Your task to perform on an android device: change the upload size in google photos Image 0: 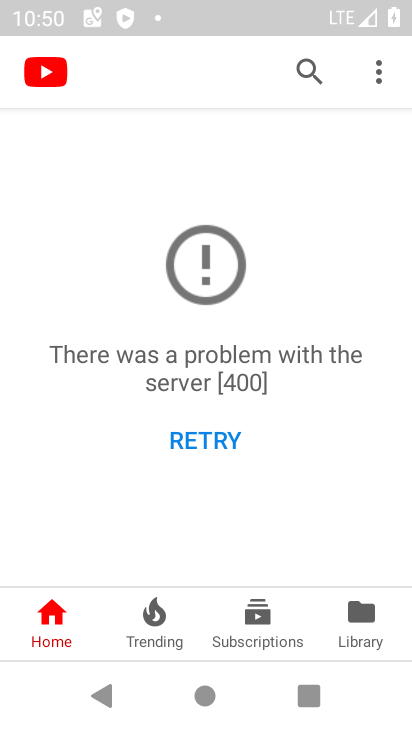
Step 0: press back button
Your task to perform on an android device: change the upload size in google photos Image 1: 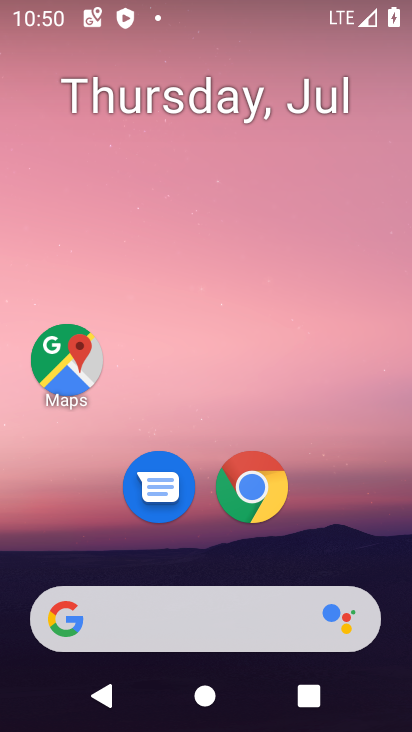
Step 1: drag from (198, 587) to (262, 36)
Your task to perform on an android device: change the upload size in google photos Image 2: 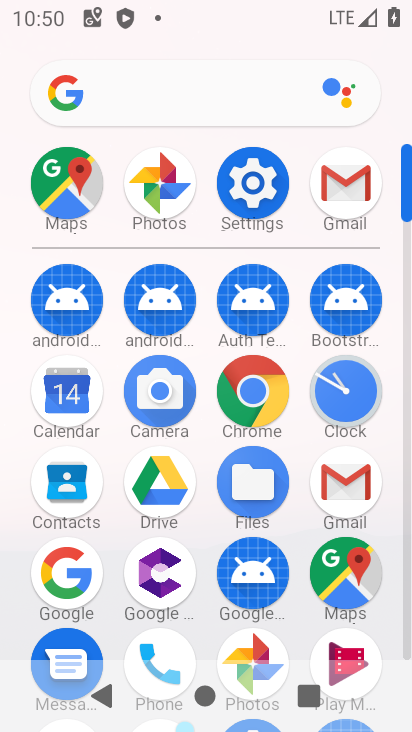
Step 2: click (250, 643)
Your task to perform on an android device: change the upload size in google photos Image 3: 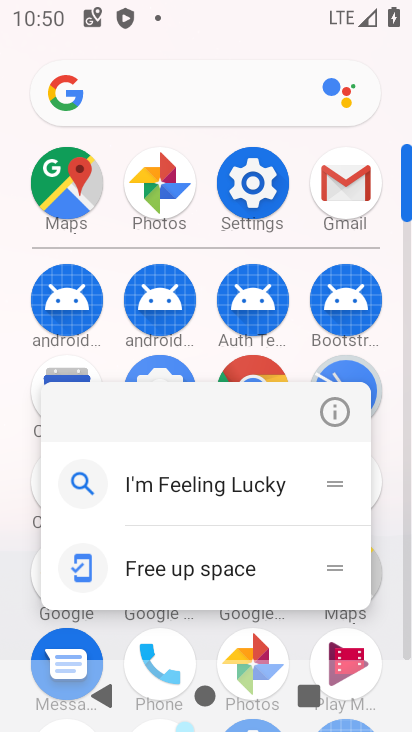
Step 3: click (251, 644)
Your task to perform on an android device: change the upload size in google photos Image 4: 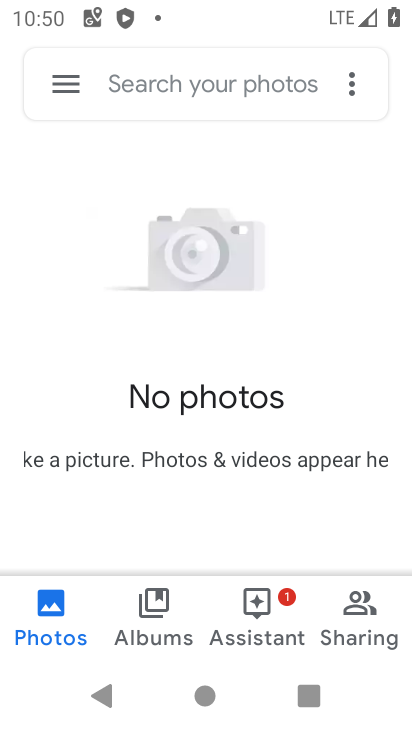
Step 4: click (50, 80)
Your task to perform on an android device: change the upload size in google photos Image 5: 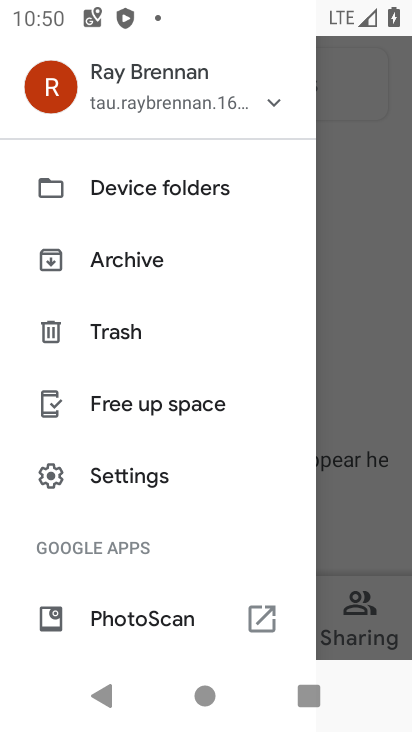
Step 5: click (115, 467)
Your task to perform on an android device: change the upload size in google photos Image 6: 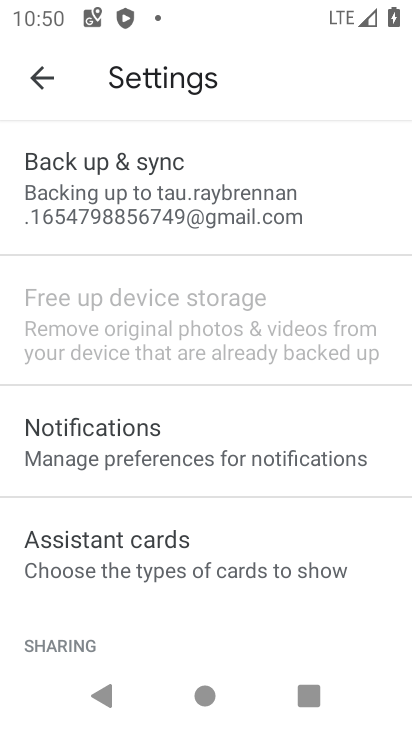
Step 6: click (120, 200)
Your task to perform on an android device: change the upload size in google photos Image 7: 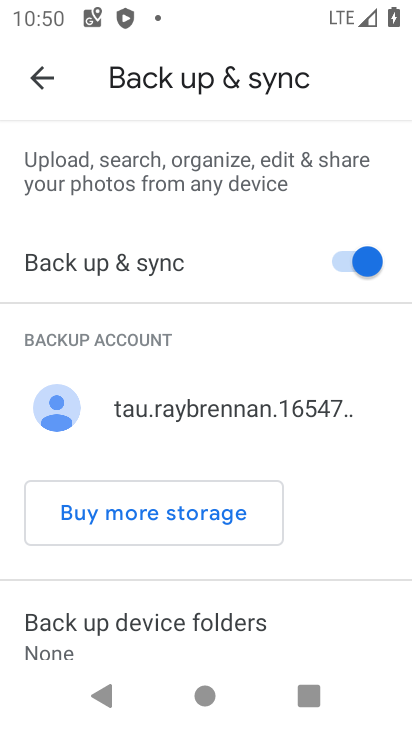
Step 7: drag from (161, 611) to (249, 215)
Your task to perform on an android device: change the upload size in google photos Image 8: 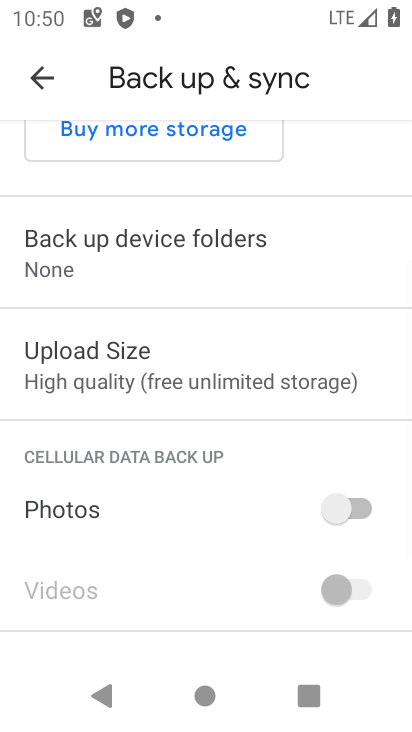
Step 8: click (141, 357)
Your task to perform on an android device: change the upload size in google photos Image 9: 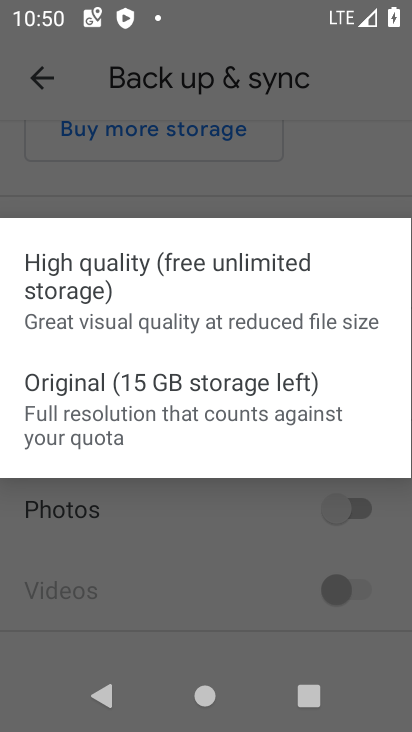
Step 9: click (160, 407)
Your task to perform on an android device: change the upload size in google photos Image 10: 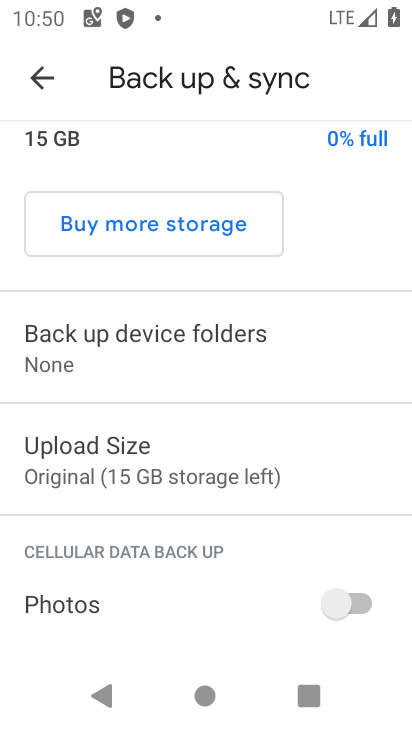
Step 10: task complete